Your task to perform on an android device: turn on location history Image 0: 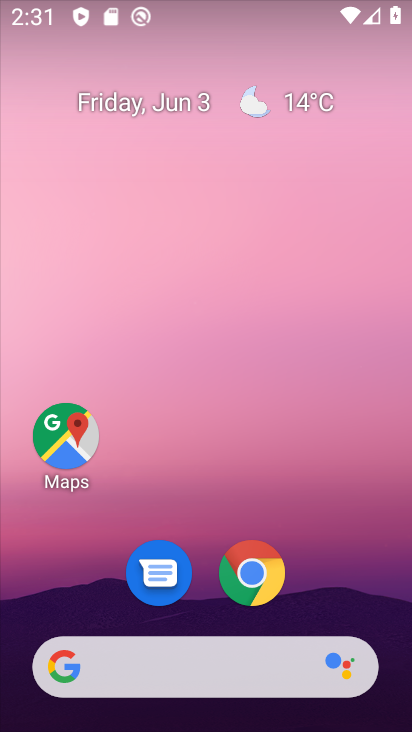
Step 0: drag from (245, 710) to (309, 214)
Your task to perform on an android device: turn on location history Image 1: 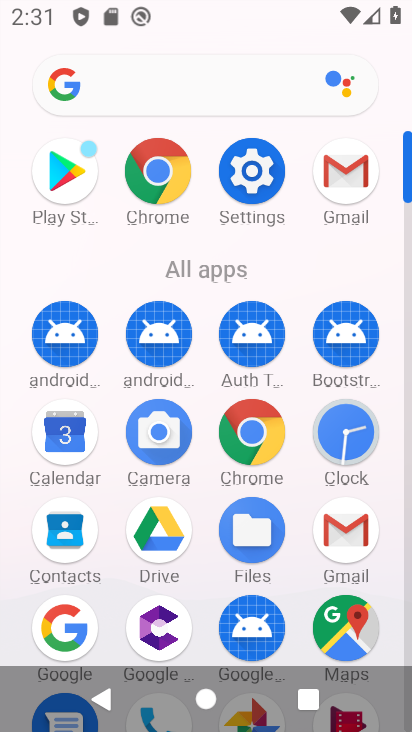
Step 1: click (261, 183)
Your task to perform on an android device: turn on location history Image 2: 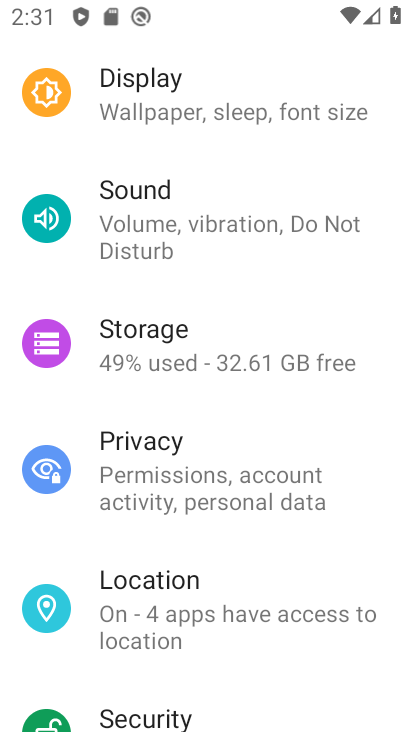
Step 2: click (204, 600)
Your task to perform on an android device: turn on location history Image 3: 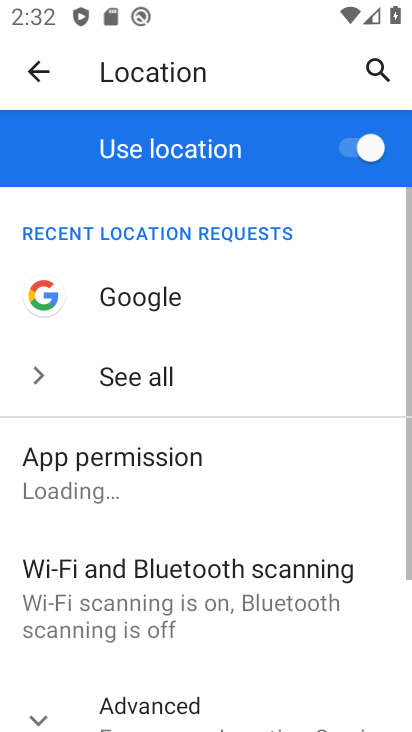
Step 3: drag from (220, 594) to (263, 181)
Your task to perform on an android device: turn on location history Image 4: 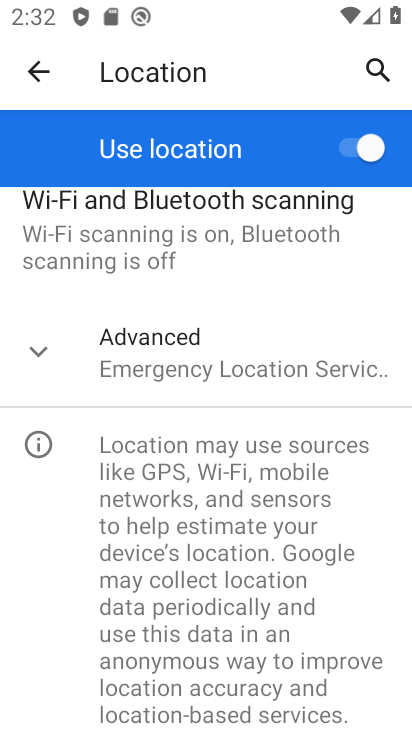
Step 4: click (204, 365)
Your task to perform on an android device: turn on location history Image 5: 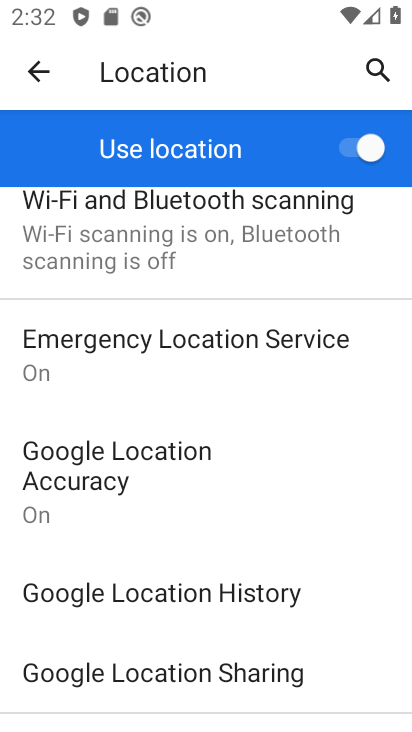
Step 5: click (242, 600)
Your task to perform on an android device: turn on location history Image 6: 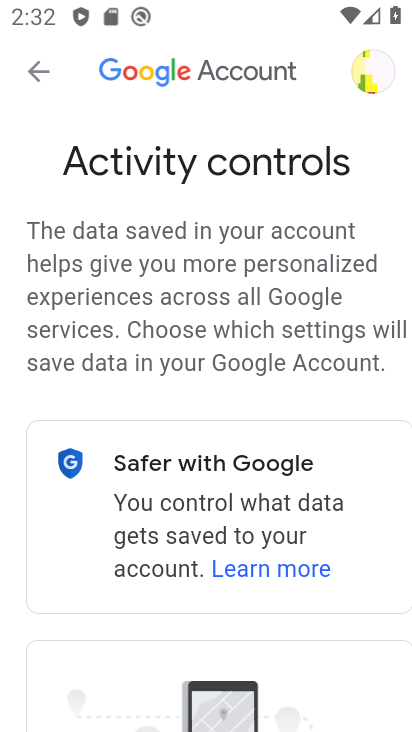
Step 6: drag from (193, 670) to (234, 14)
Your task to perform on an android device: turn on location history Image 7: 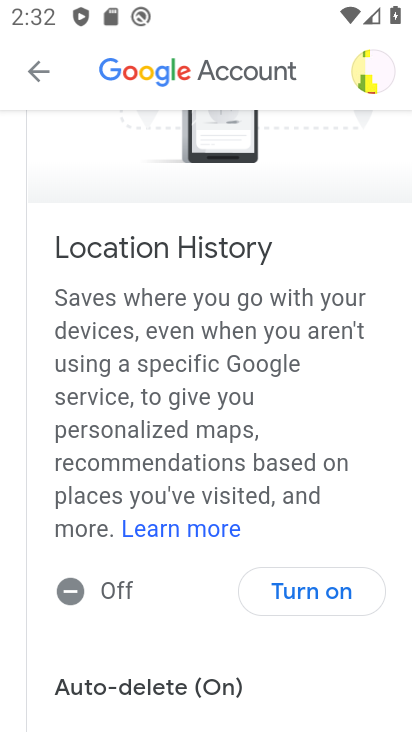
Step 7: click (322, 595)
Your task to perform on an android device: turn on location history Image 8: 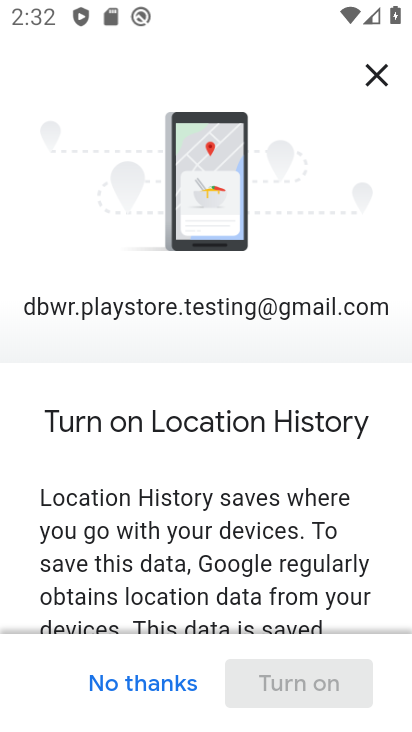
Step 8: drag from (236, 605) to (248, 187)
Your task to perform on an android device: turn on location history Image 9: 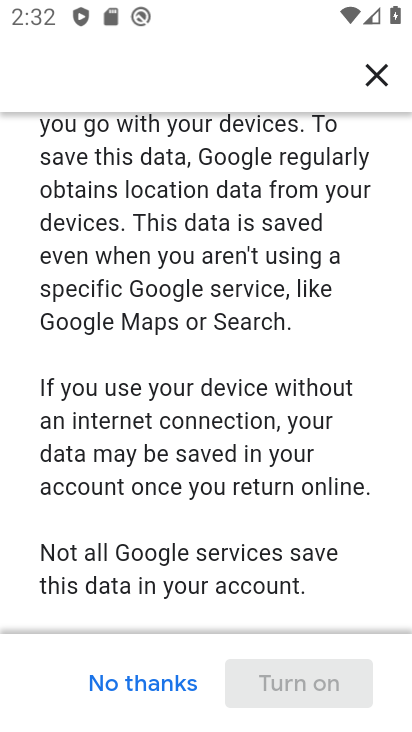
Step 9: drag from (247, 504) to (196, 17)
Your task to perform on an android device: turn on location history Image 10: 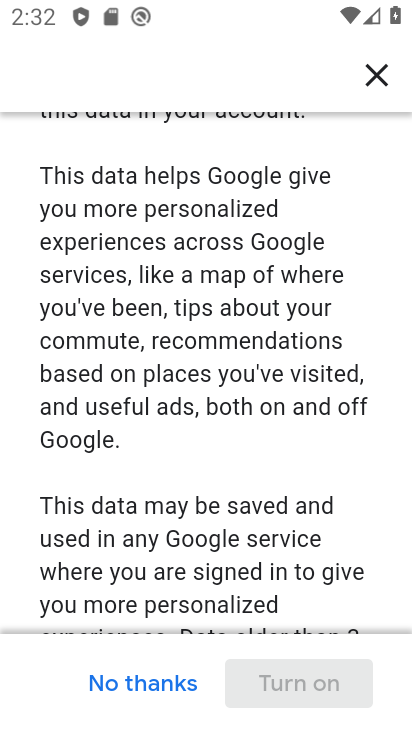
Step 10: drag from (255, 509) to (287, 84)
Your task to perform on an android device: turn on location history Image 11: 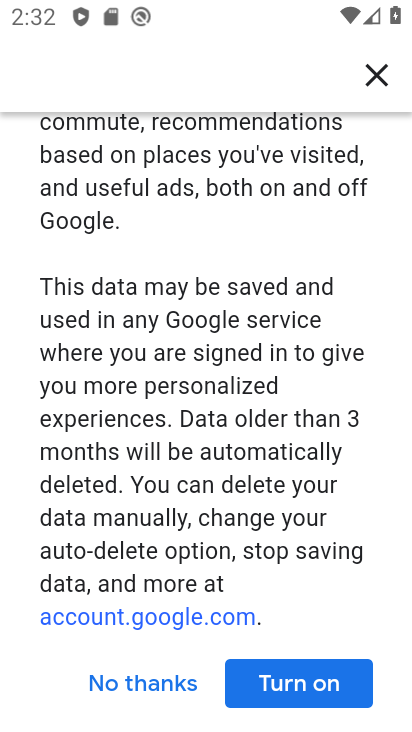
Step 11: drag from (277, 470) to (323, 258)
Your task to perform on an android device: turn on location history Image 12: 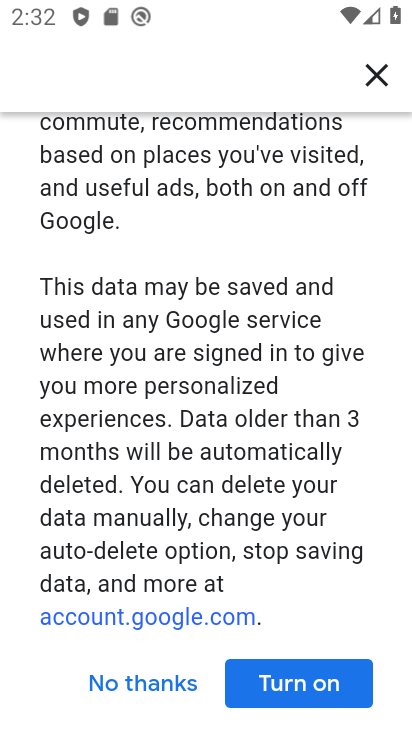
Step 12: click (327, 671)
Your task to perform on an android device: turn on location history Image 13: 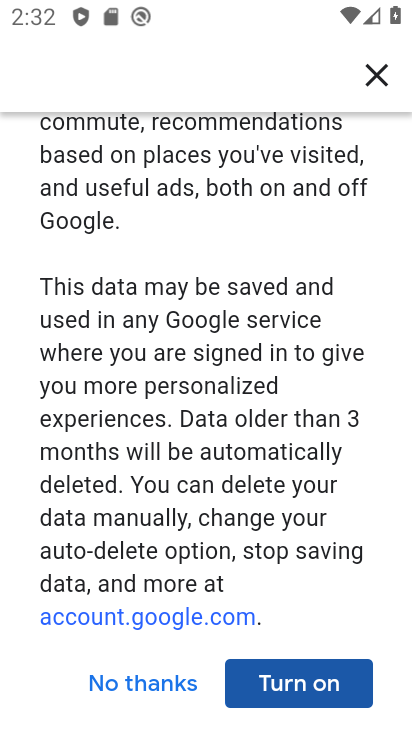
Step 13: click (327, 671)
Your task to perform on an android device: turn on location history Image 14: 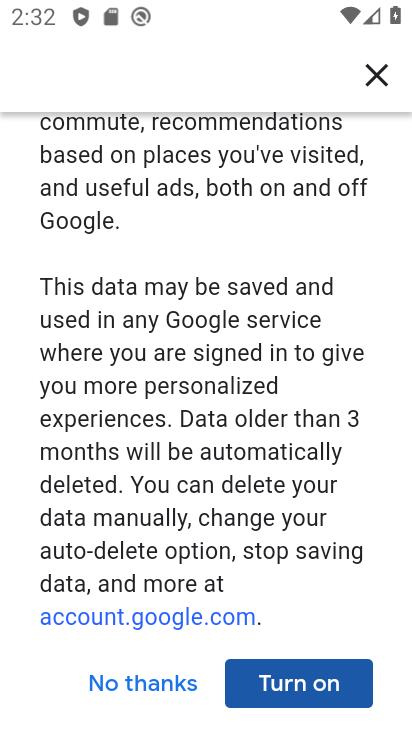
Step 14: click (327, 671)
Your task to perform on an android device: turn on location history Image 15: 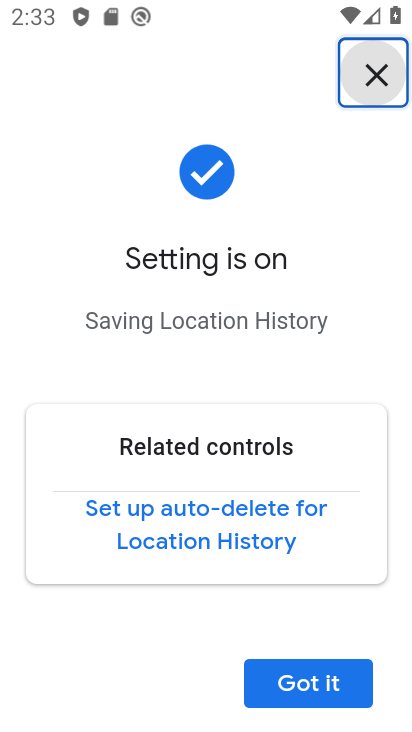
Step 15: task complete